Your task to perform on an android device: delete browsing data in the chrome app Image 0: 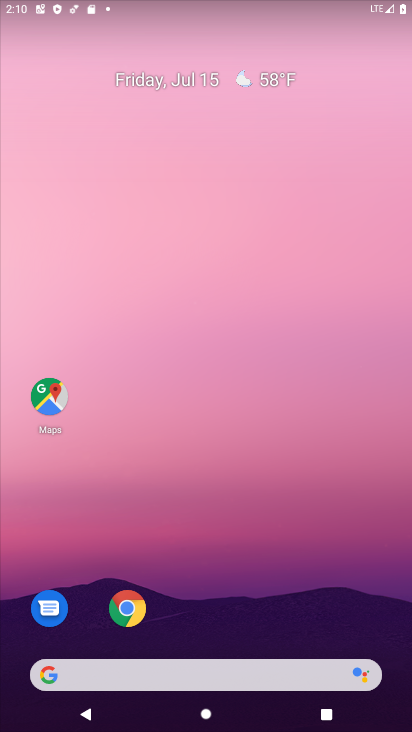
Step 0: drag from (222, 609) to (222, 70)
Your task to perform on an android device: delete browsing data in the chrome app Image 1: 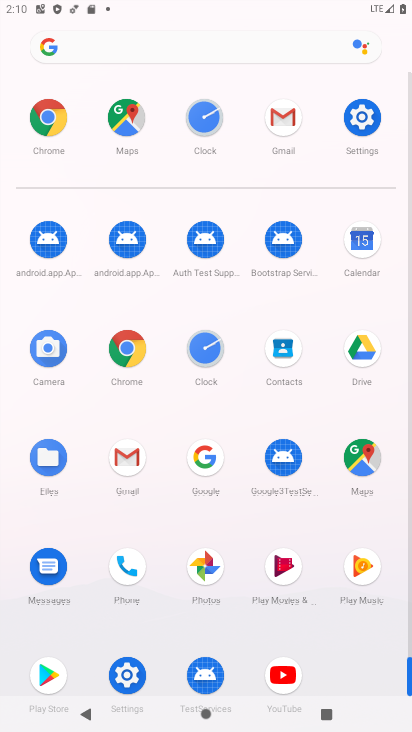
Step 1: click (132, 341)
Your task to perform on an android device: delete browsing data in the chrome app Image 2: 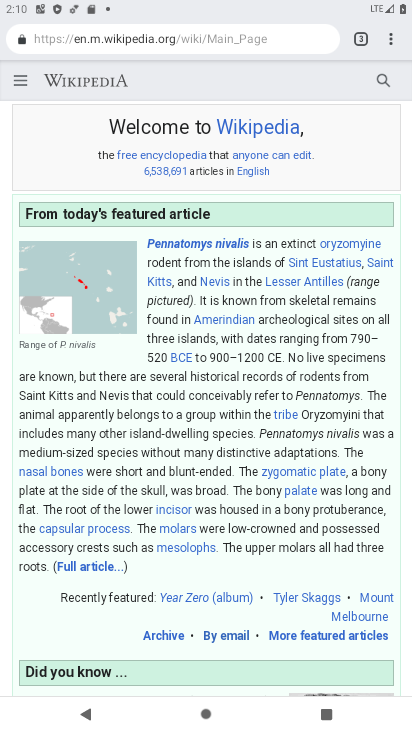
Step 2: drag from (390, 35) to (256, 465)
Your task to perform on an android device: delete browsing data in the chrome app Image 3: 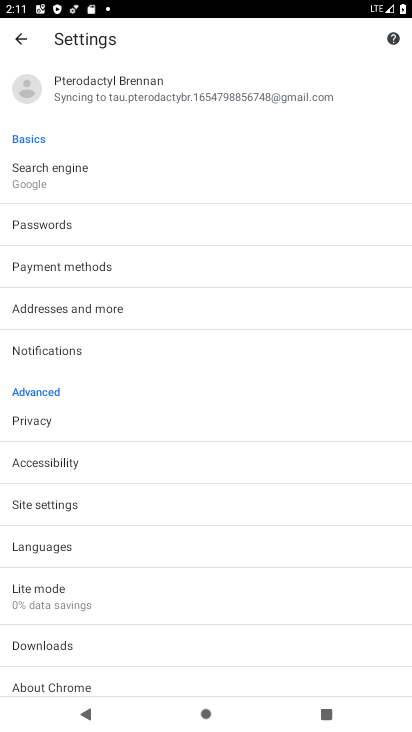
Step 3: click (61, 503)
Your task to perform on an android device: delete browsing data in the chrome app Image 4: 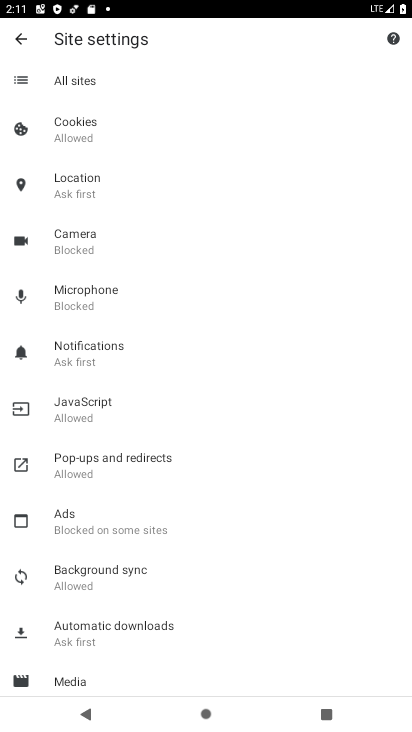
Step 4: click (14, 38)
Your task to perform on an android device: delete browsing data in the chrome app Image 5: 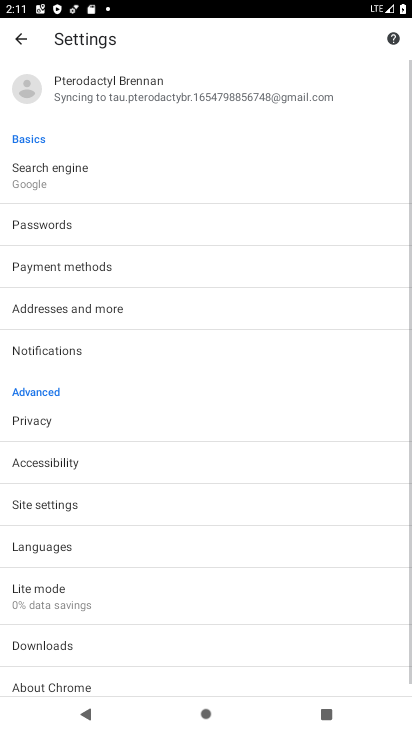
Step 5: click (33, 410)
Your task to perform on an android device: delete browsing data in the chrome app Image 6: 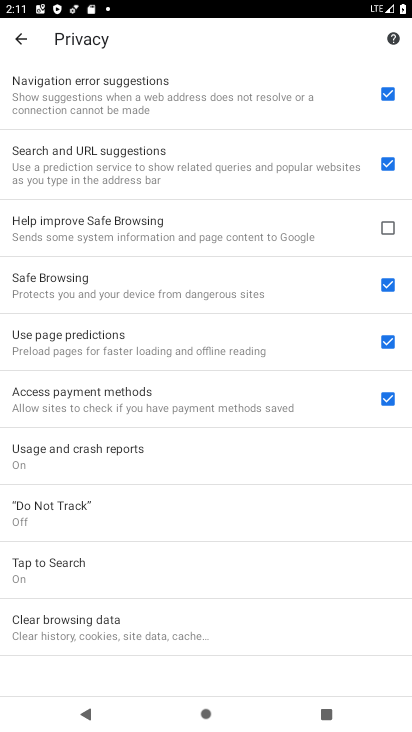
Step 6: click (125, 619)
Your task to perform on an android device: delete browsing data in the chrome app Image 7: 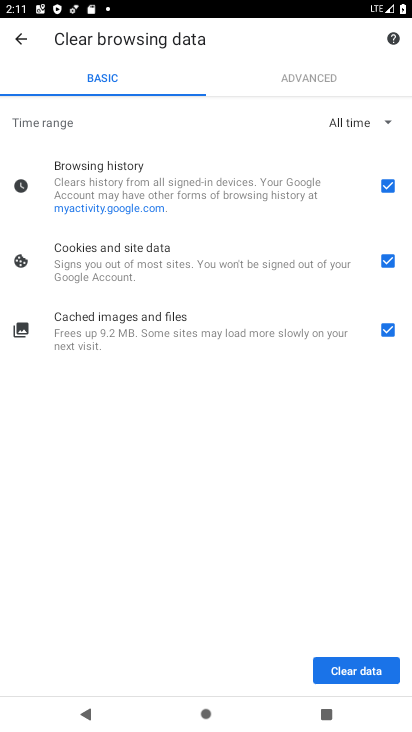
Step 7: click (343, 656)
Your task to perform on an android device: delete browsing data in the chrome app Image 8: 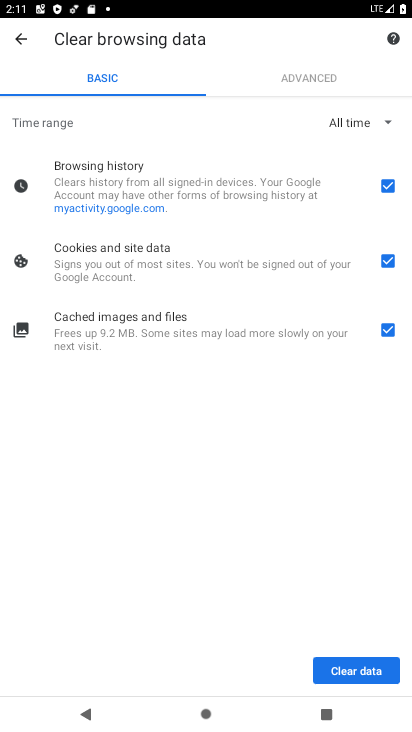
Step 8: click (346, 673)
Your task to perform on an android device: delete browsing data in the chrome app Image 9: 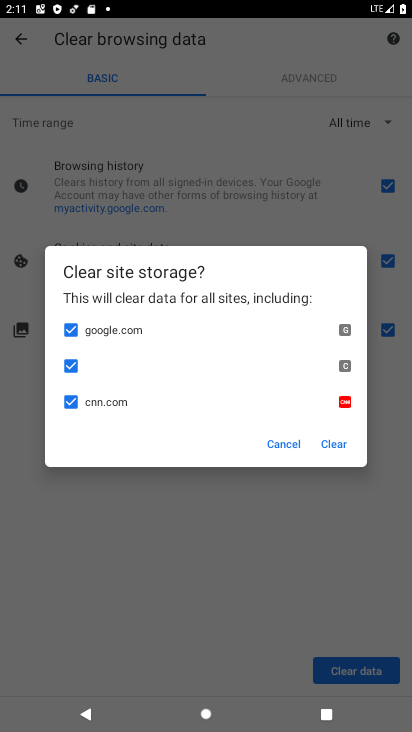
Step 9: click (329, 443)
Your task to perform on an android device: delete browsing data in the chrome app Image 10: 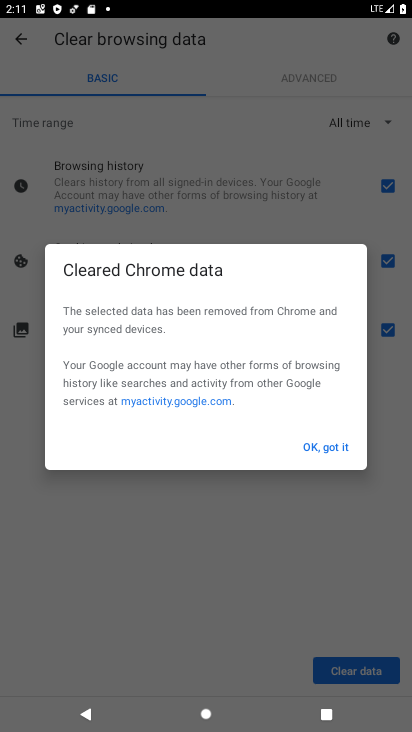
Step 10: click (332, 444)
Your task to perform on an android device: delete browsing data in the chrome app Image 11: 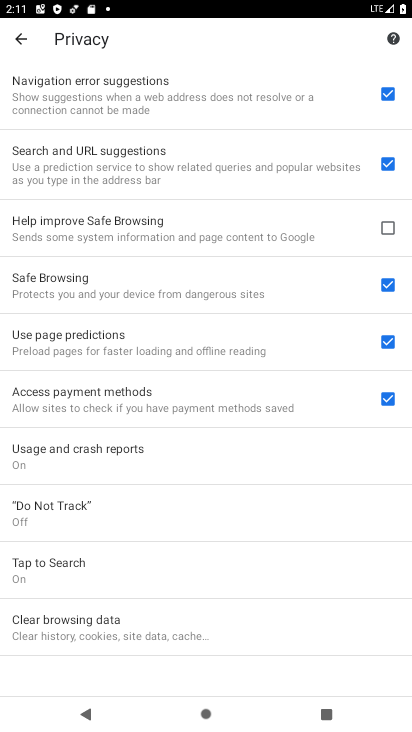
Step 11: task complete